Your task to perform on an android device: turn off airplane mode Image 0: 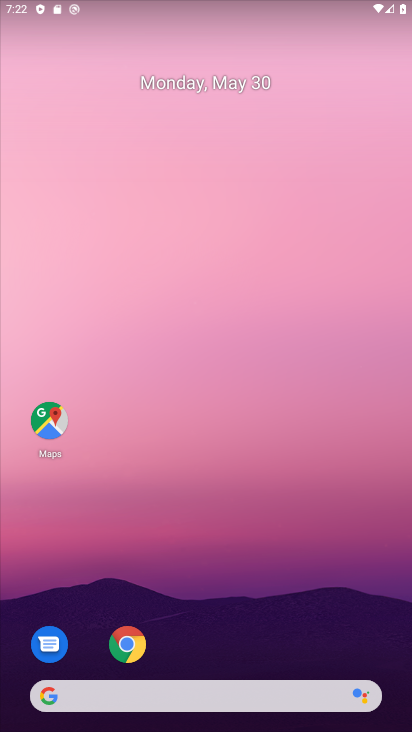
Step 0: drag from (253, 593) to (124, 26)
Your task to perform on an android device: turn off airplane mode Image 1: 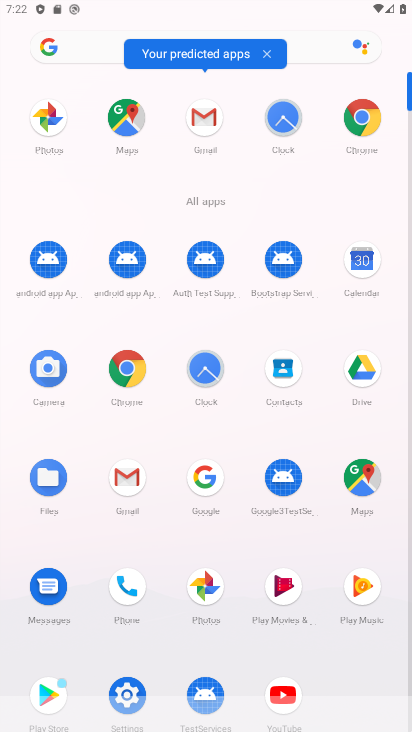
Step 1: drag from (181, 422) to (166, 276)
Your task to perform on an android device: turn off airplane mode Image 2: 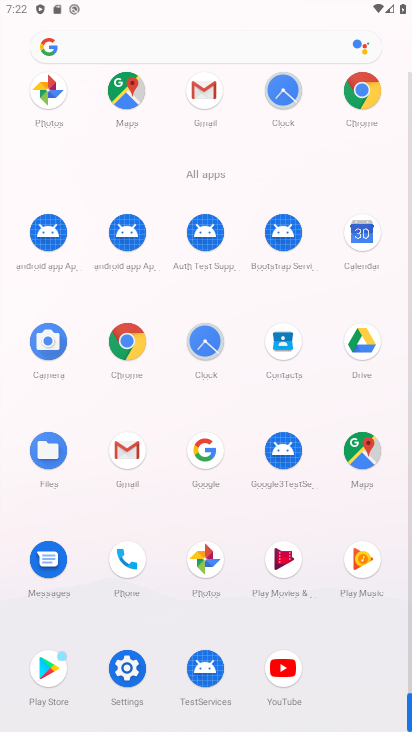
Step 2: click (127, 670)
Your task to perform on an android device: turn off airplane mode Image 3: 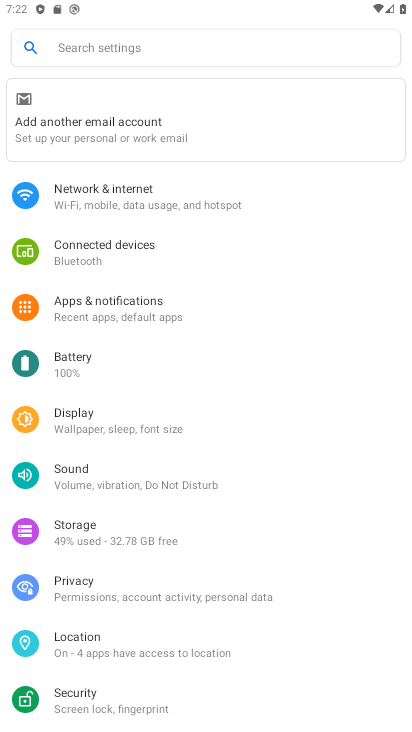
Step 3: click (149, 190)
Your task to perform on an android device: turn off airplane mode Image 4: 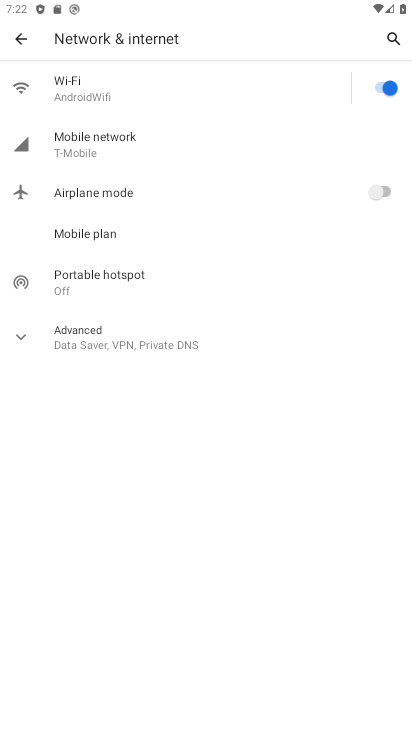
Step 4: task complete